Your task to perform on an android device: Add "dell alienware" to the cart on amazon.com Image 0: 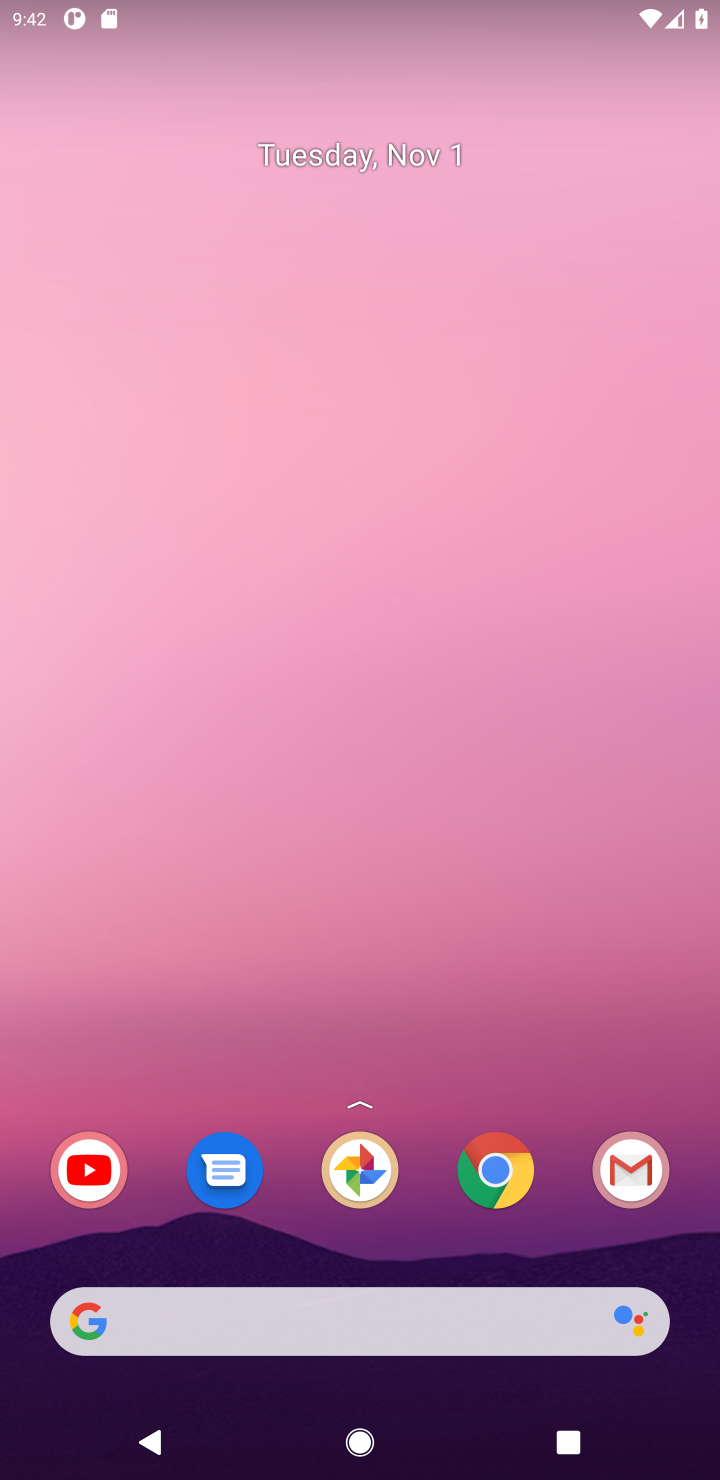
Step 0: click (510, 1184)
Your task to perform on an android device: Add "dell alienware" to the cart on amazon.com Image 1: 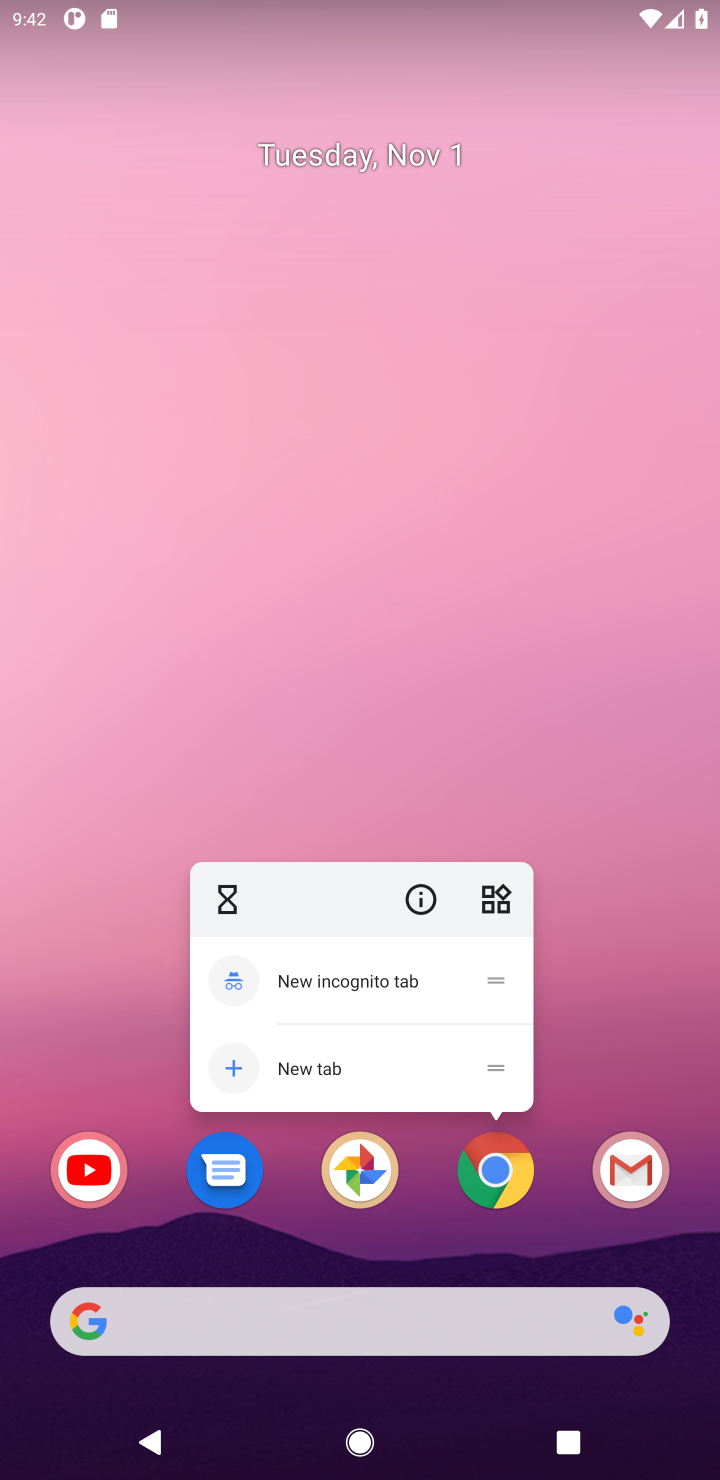
Step 1: click (494, 1181)
Your task to perform on an android device: Add "dell alienware" to the cart on amazon.com Image 2: 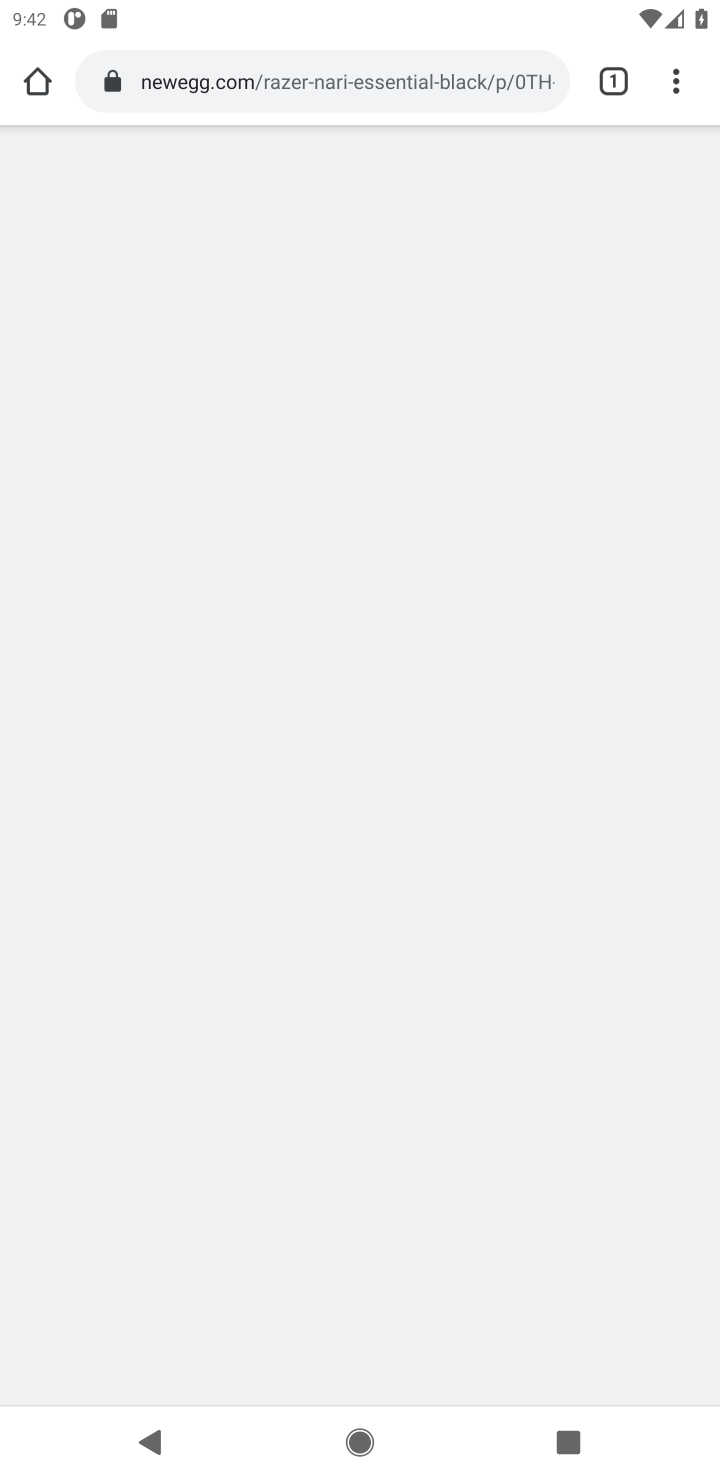
Step 2: click (358, 92)
Your task to perform on an android device: Add "dell alienware" to the cart on amazon.com Image 3: 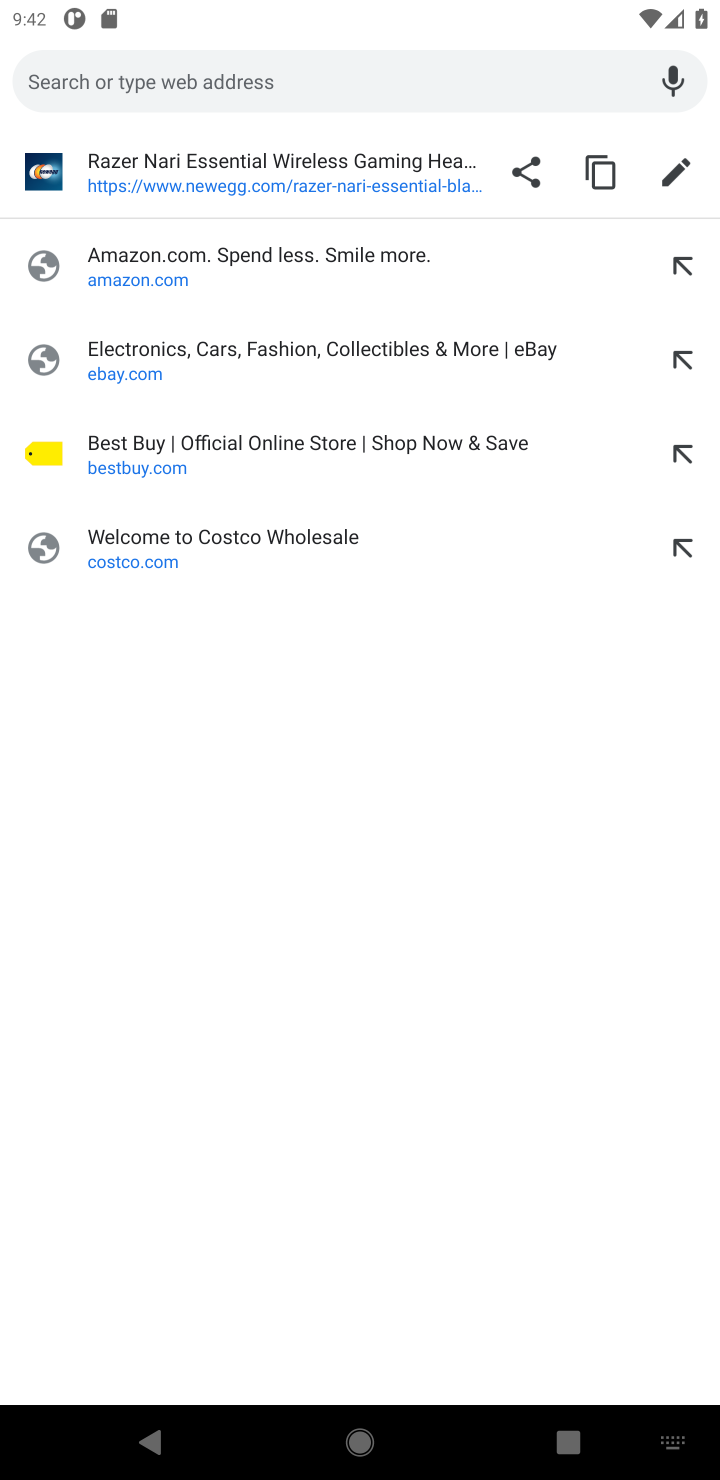
Step 3: type "amazon.com"
Your task to perform on an android device: Add "dell alienware" to the cart on amazon.com Image 4: 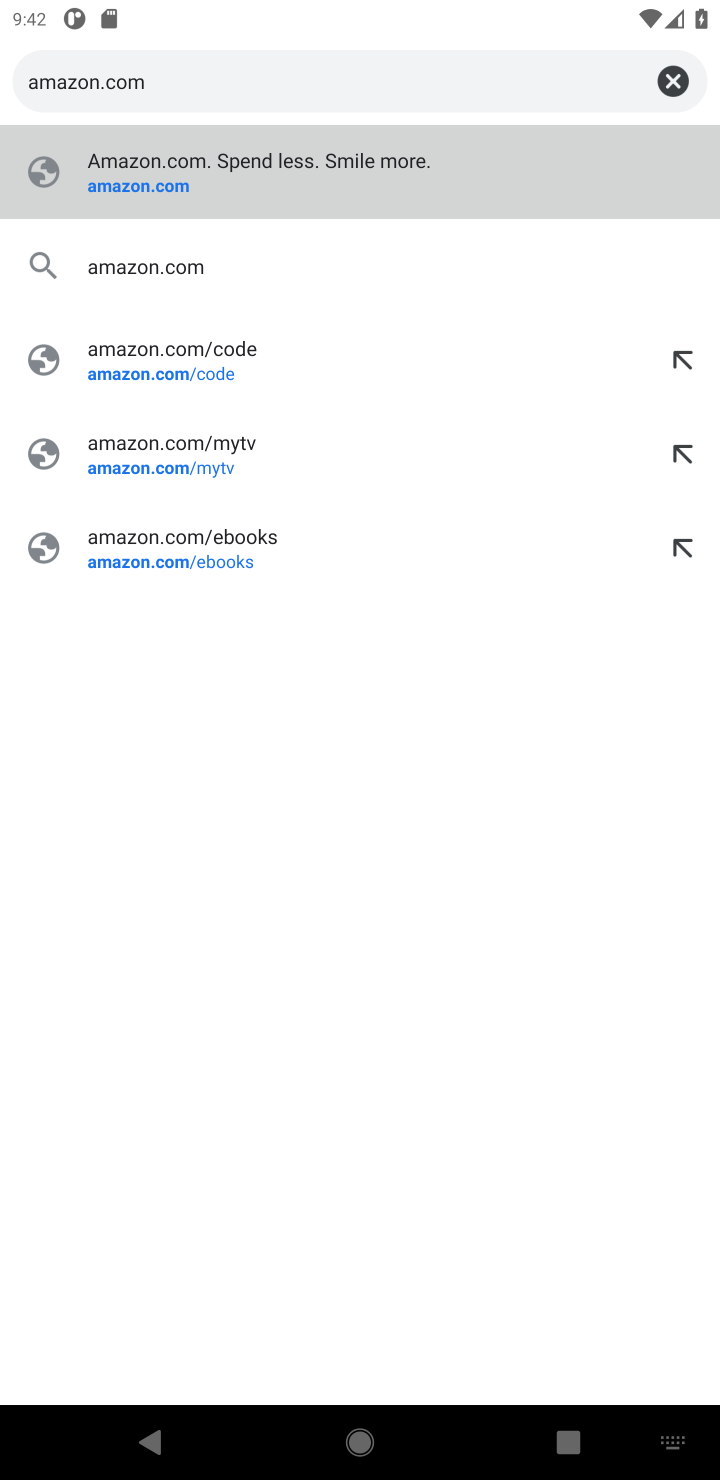
Step 4: type ""
Your task to perform on an android device: Add "dell alienware" to the cart on amazon.com Image 5: 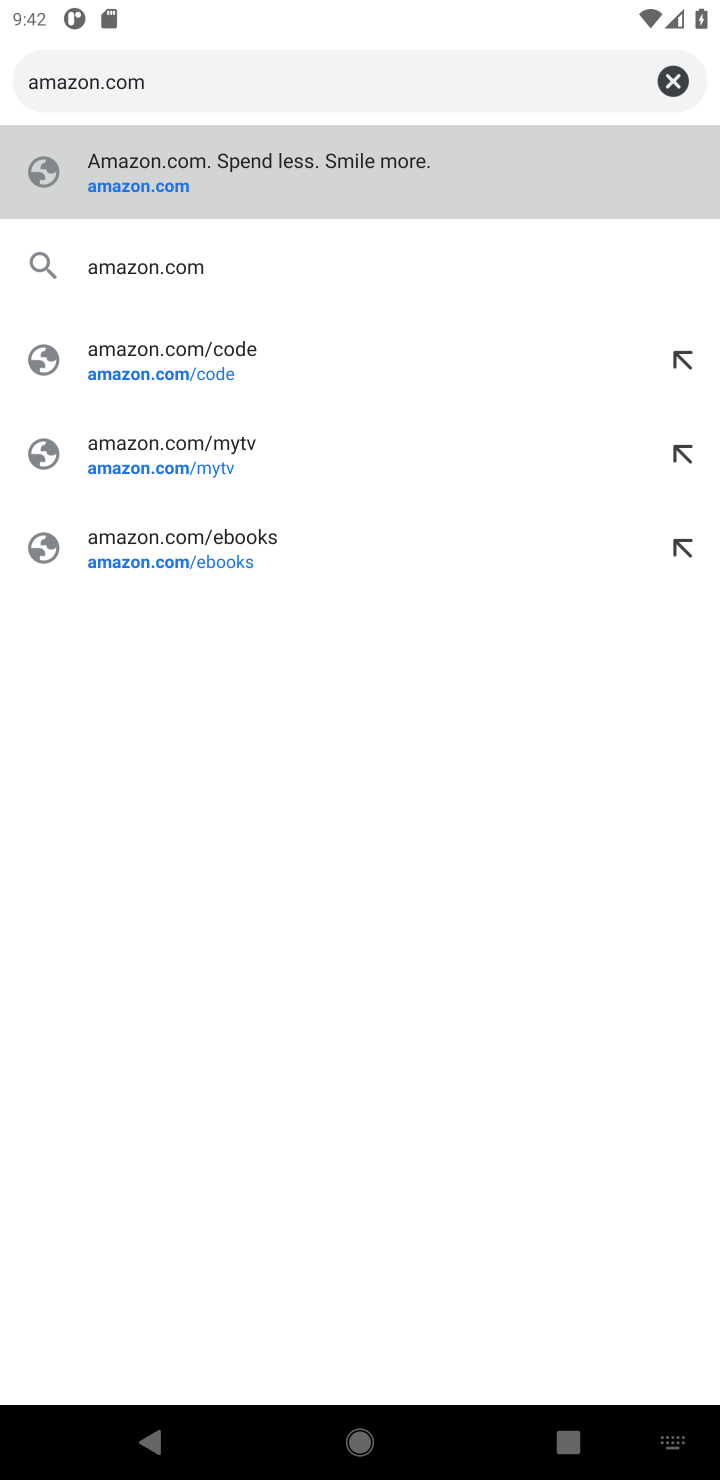
Step 5: press enter
Your task to perform on an android device: Add "dell alienware" to the cart on amazon.com Image 6: 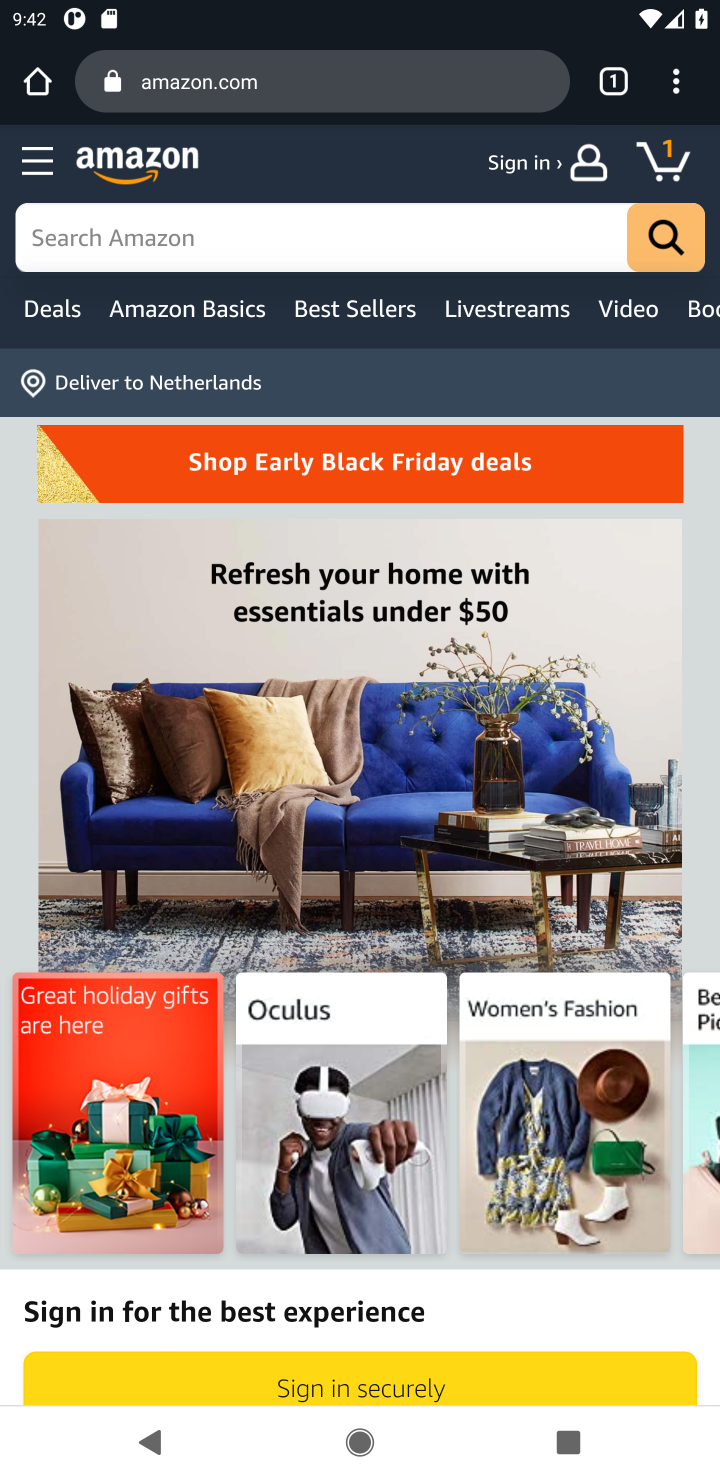
Step 6: click (332, 230)
Your task to perform on an android device: Add "dell alienware" to the cart on amazon.com Image 7: 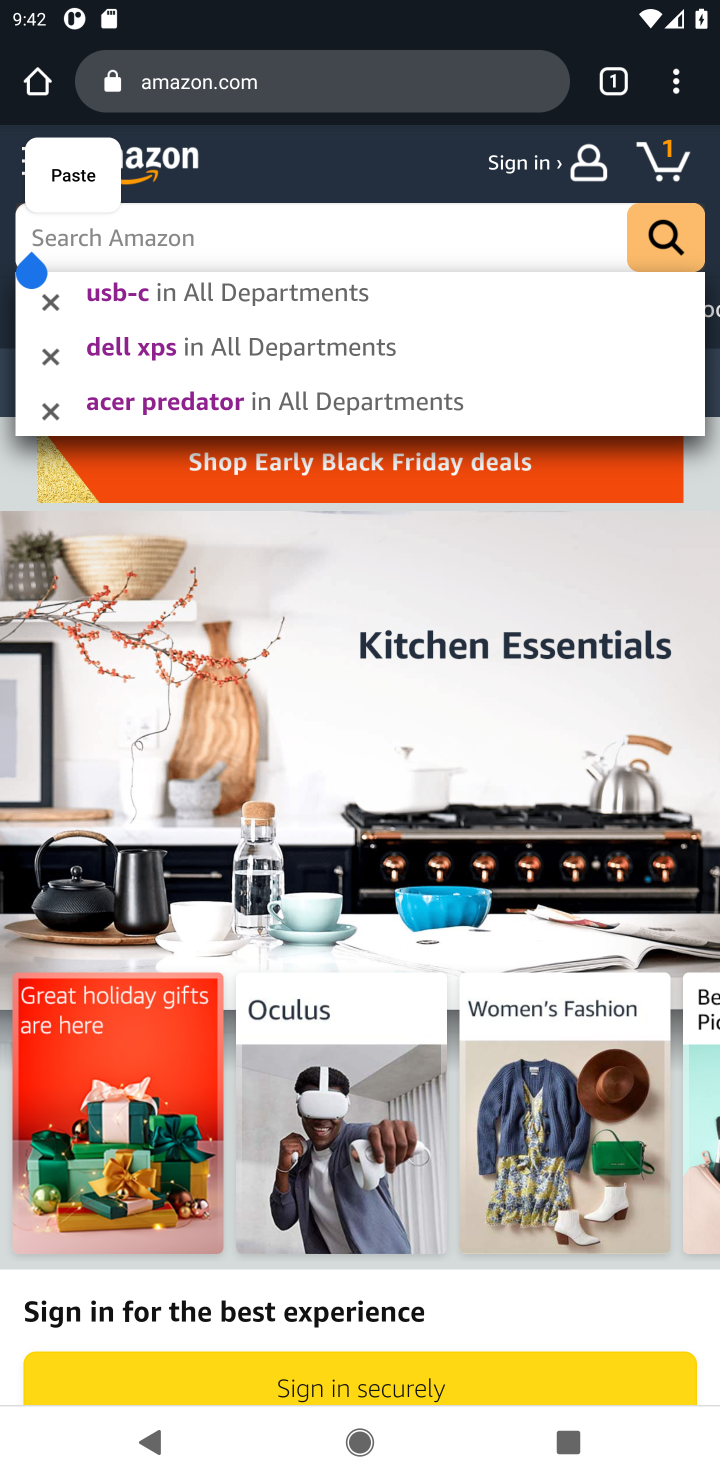
Step 7: type "dell alienware"
Your task to perform on an android device: Add "dell alienware" to the cart on amazon.com Image 8: 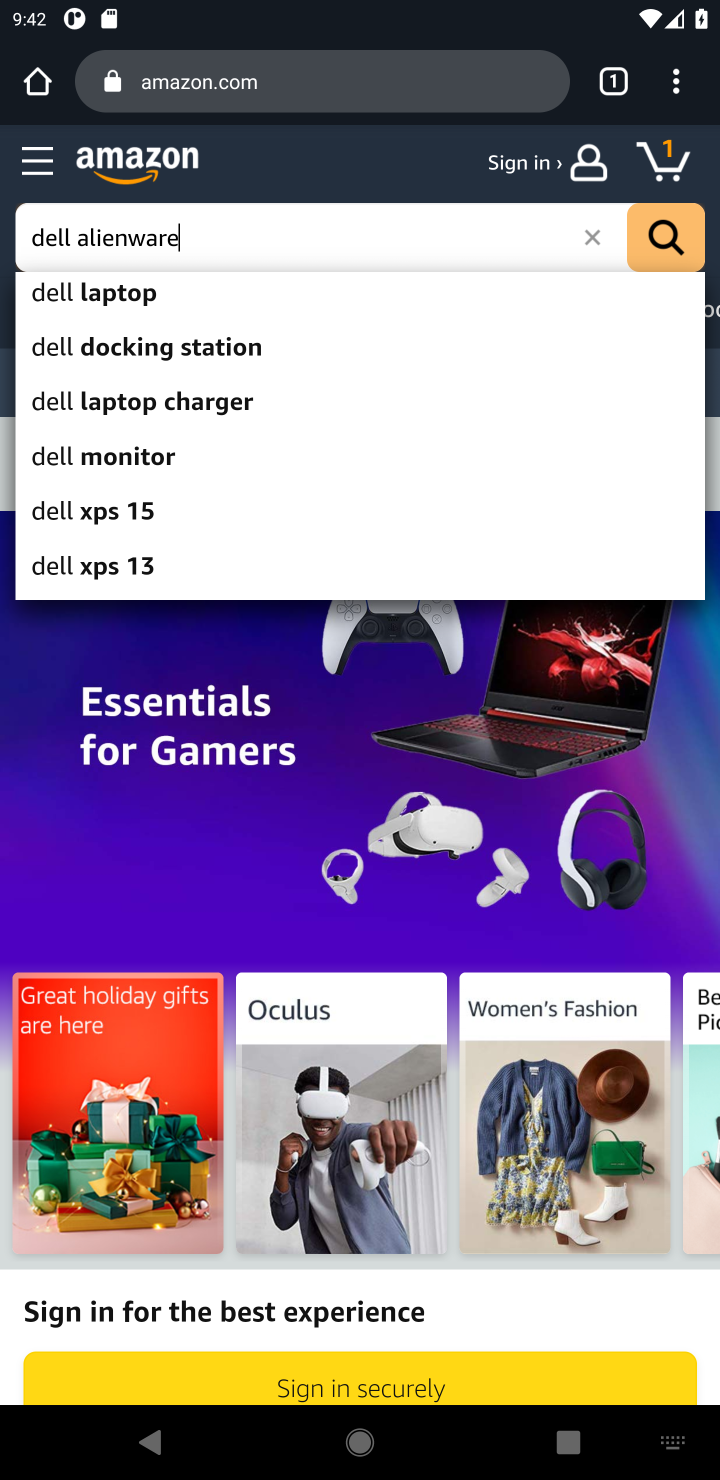
Step 8: type ""
Your task to perform on an android device: Add "dell alienware" to the cart on amazon.com Image 9: 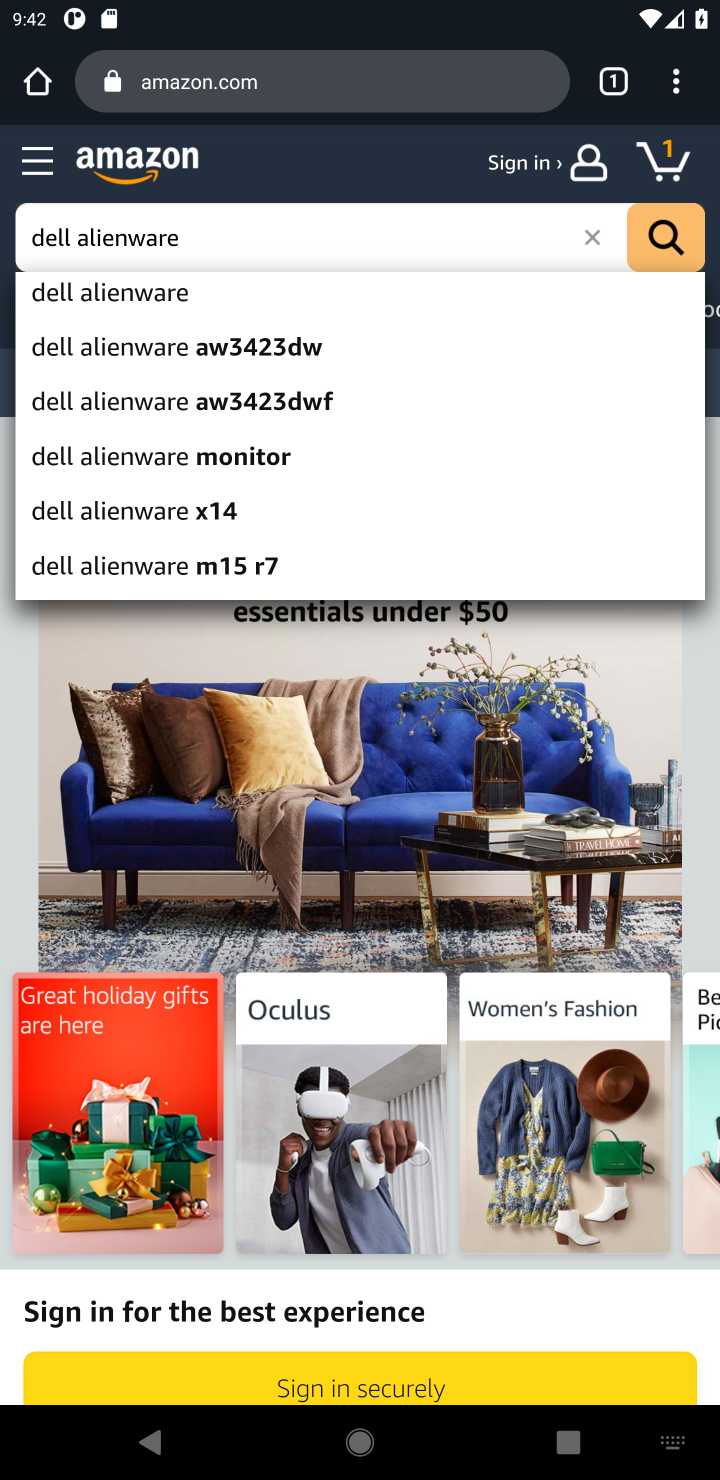
Step 9: press enter
Your task to perform on an android device: Add "dell alienware" to the cart on amazon.com Image 10: 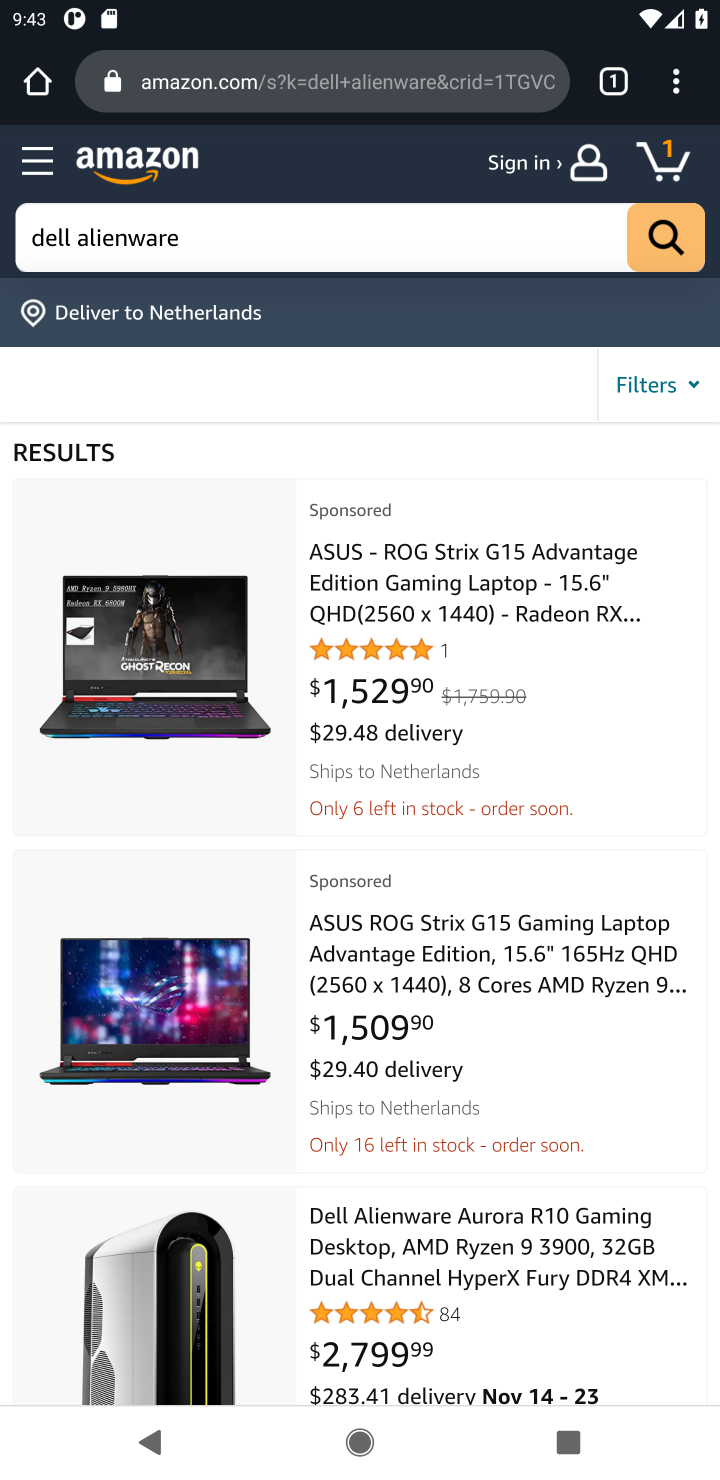
Step 10: drag from (511, 1064) to (523, 945)
Your task to perform on an android device: Add "dell alienware" to the cart on amazon.com Image 11: 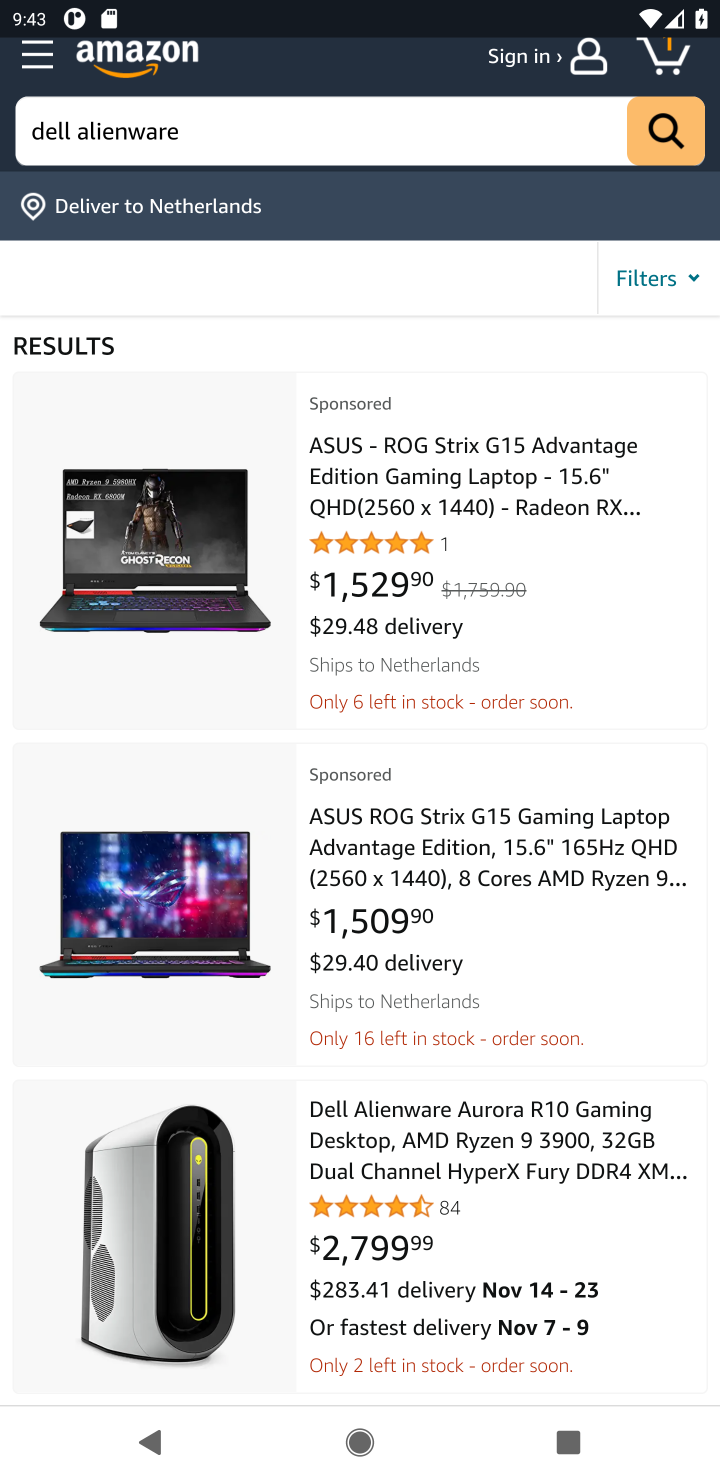
Step 11: click (439, 1130)
Your task to perform on an android device: Add "dell alienware" to the cart on amazon.com Image 12: 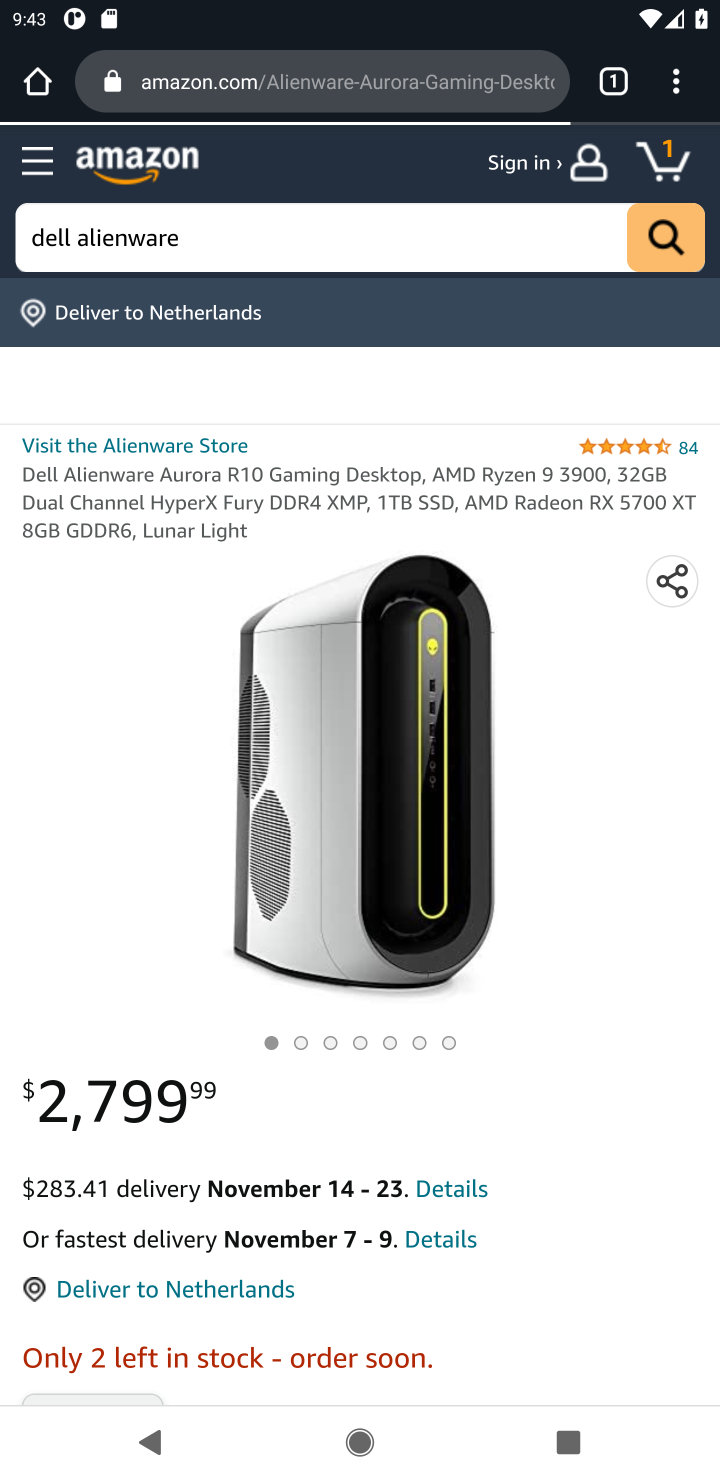
Step 12: drag from (526, 1175) to (503, 698)
Your task to perform on an android device: Add "dell alienware" to the cart on amazon.com Image 13: 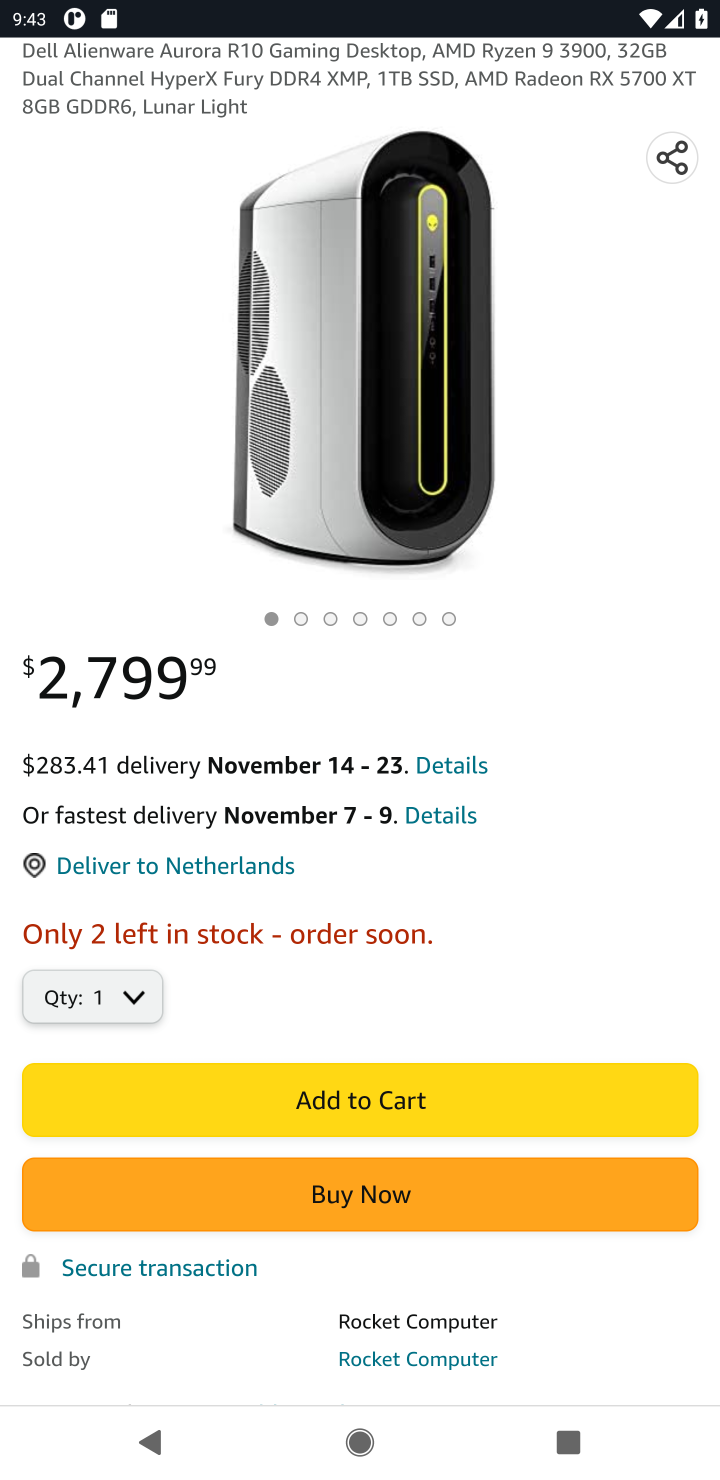
Step 13: click (439, 1097)
Your task to perform on an android device: Add "dell alienware" to the cart on amazon.com Image 14: 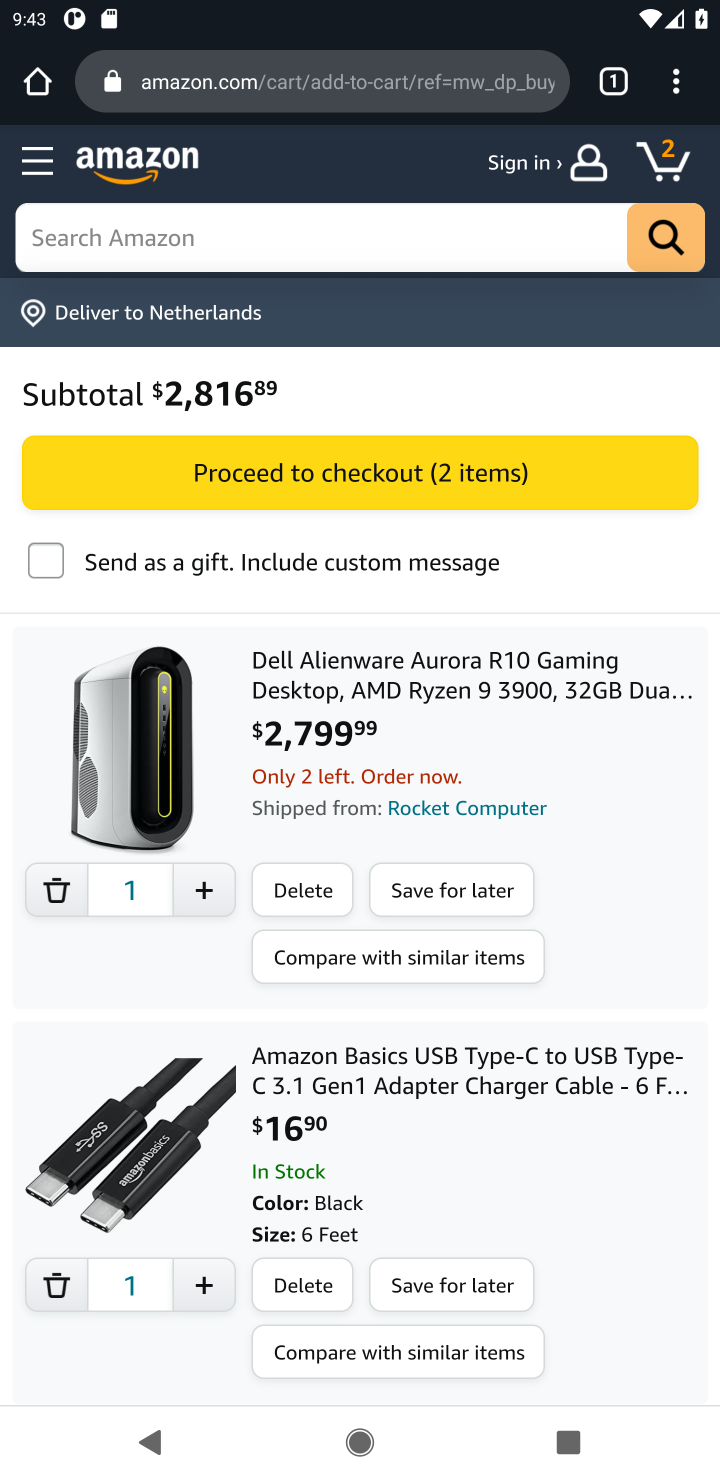
Step 14: task complete